Your task to perform on an android device: When is my next appointment? Image 0: 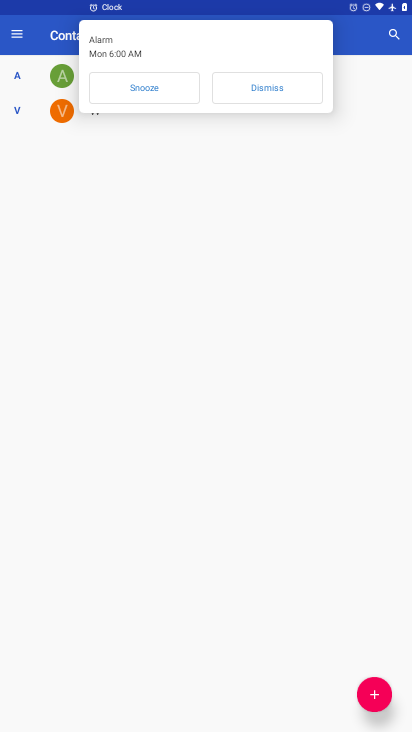
Step 0: press home button
Your task to perform on an android device: When is my next appointment? Image 1: 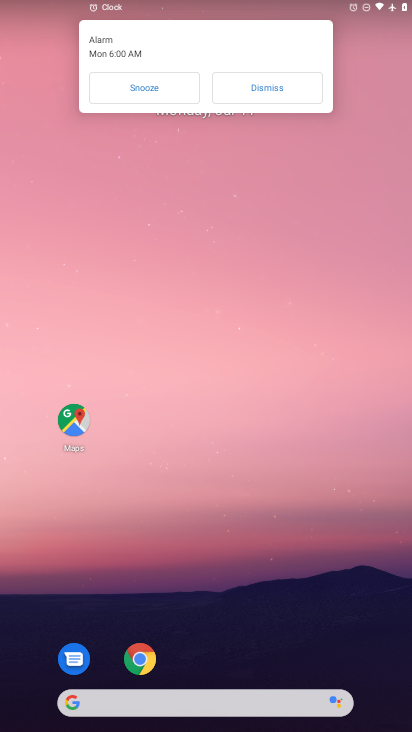
Step 1: click (259, 94)
Your task to perform on an android device: When is my next appointment? Image 2: 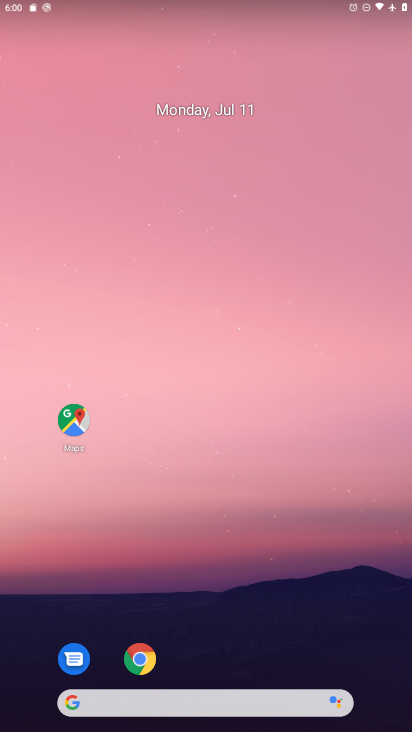
Step 2: drag from (304, 638) to (307, 111)
Your task to perform on an android device: When is my next appointment? Image 3: 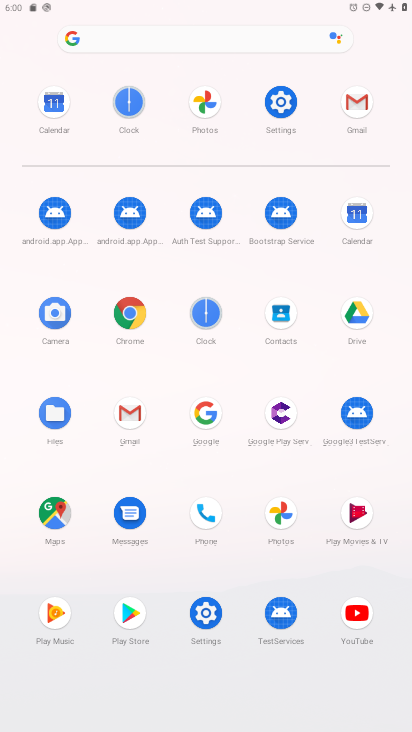
Step 3: click (360, 219)
Your task to perform on an android device: When is my next appointment? Image 4: 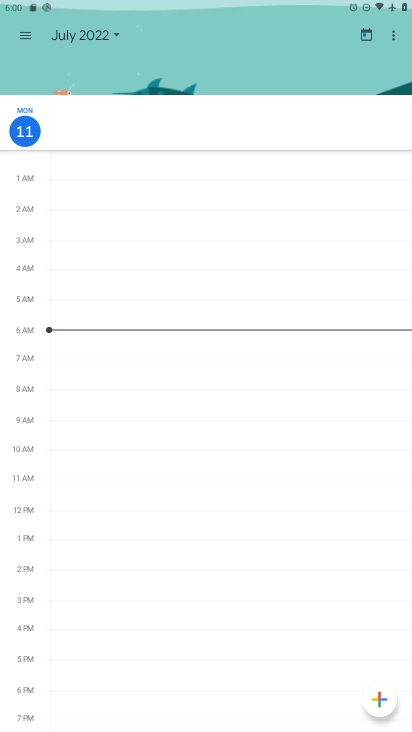
Step 4: click (26, 36)
Your task to perform on an android device: When is my next appointment? Image 5: 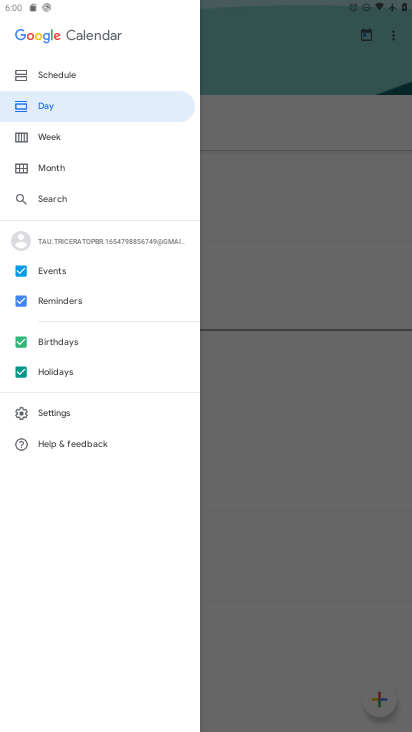
Step 5: click (53, 75)
Your task to perform on an android device: When is my next appointment? Image 6: 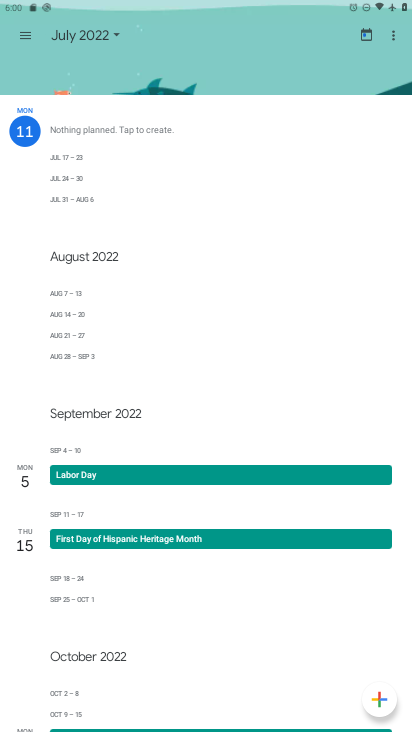
Step 6: task complete